Your task to perform on an android device: toggle wifi Image 0: 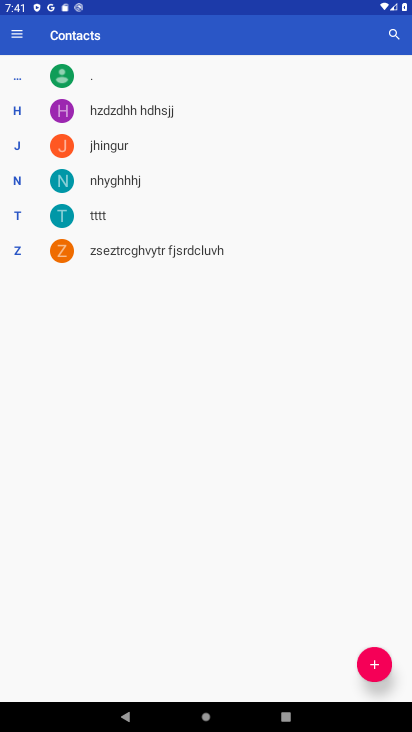
Step 0: press home button
Your task to perform on an android device: toggle wifi Image 1: 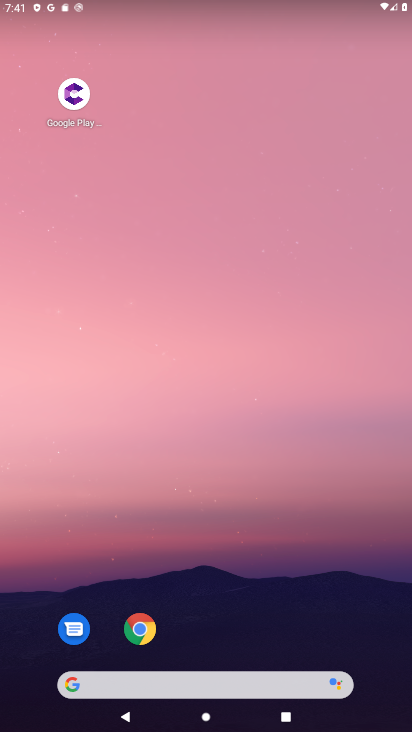
Step 1: drag from (314, 2) to (206, 621)
Your task to perform on an android device: toggle wifi Image 2: 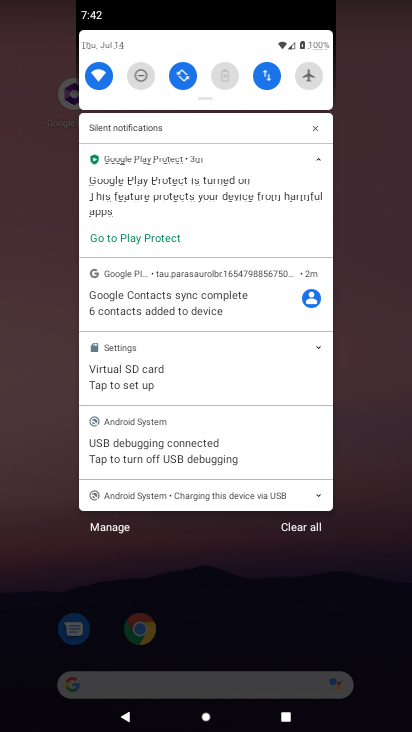
Step 2: click (98, 65)
Your task to perform on an android device: toggle wifi Image 3: 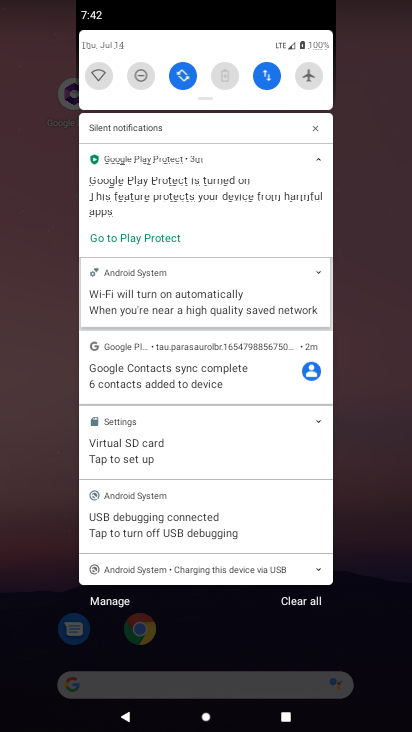
Step 3: task complete